Your task to perform on an android device: toggle translation in the chrome app Image 0: 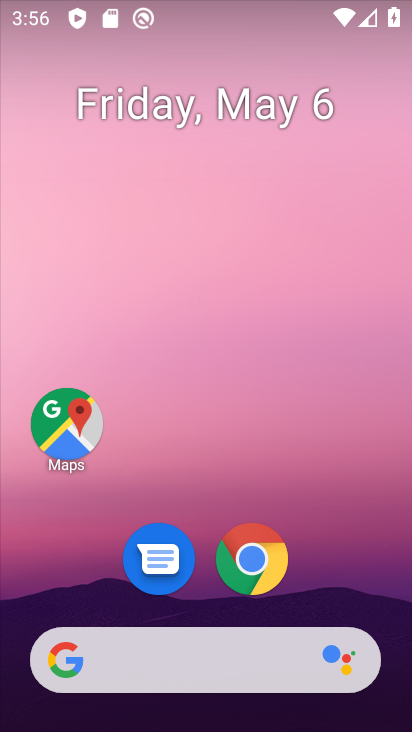
Step 0: click (261, 562)
Your task to perform on an android device: toggle translation in the chrome app Image 1: 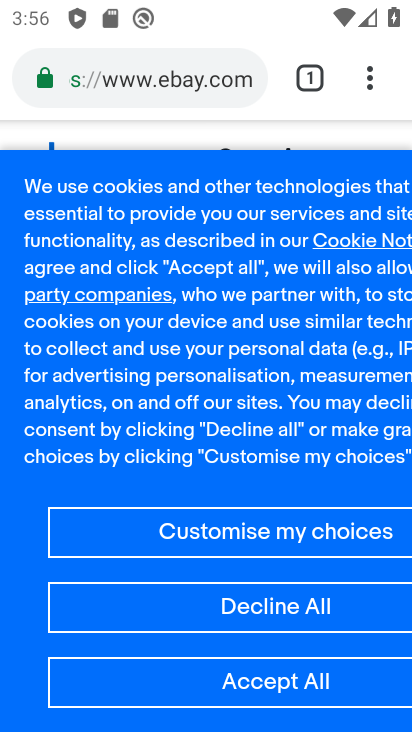
Step 1: click (376, 74)
Your task to perform on an android device: toggle translation in the chrome app Image 2: 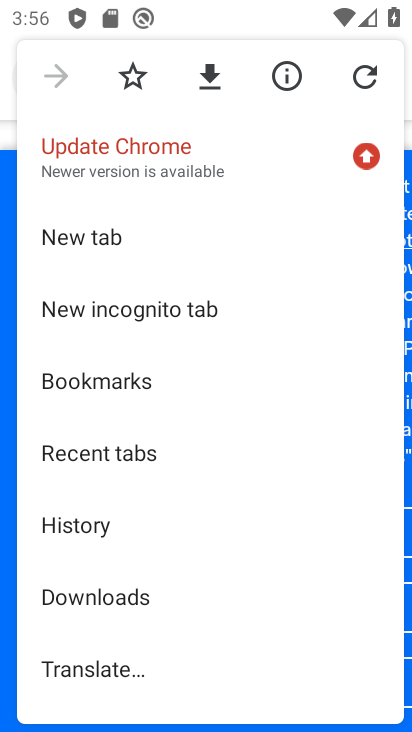
Step 2: drag from (102, 683) to (102, 299)
Your task to perform on an android device: toggle translation in the chrome app Image 3: 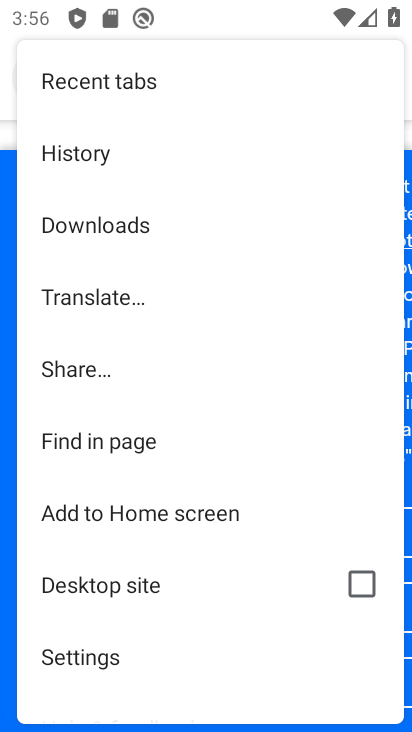
Step 3: click (107, 661)
Your task to perform on an android device: toggle translation in the chrome app Image 4: 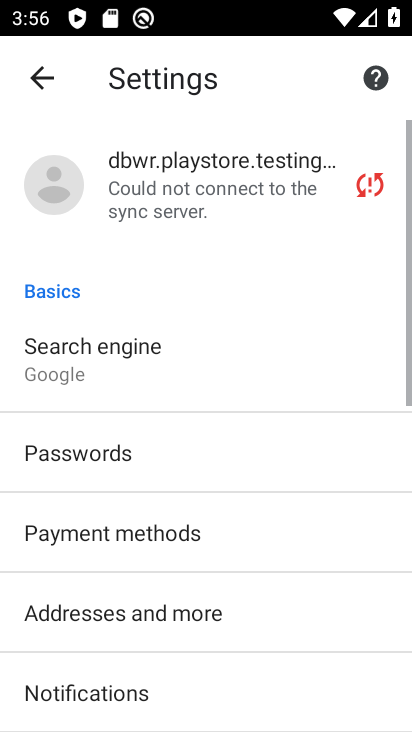
Step 4: drag from (103, 690) to (100, 283)
Your task to perform on an android device: toggle translation in the chrome app Image 5: 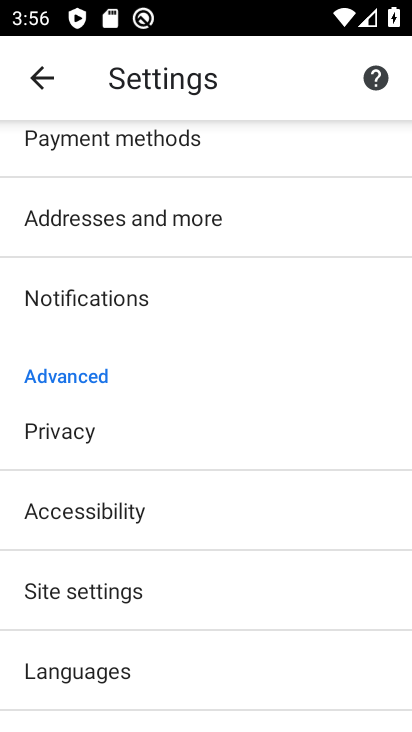
Step 5: click (82, 679)
Your task to perform on an android device: toggle translation in the chrome app Image 6: 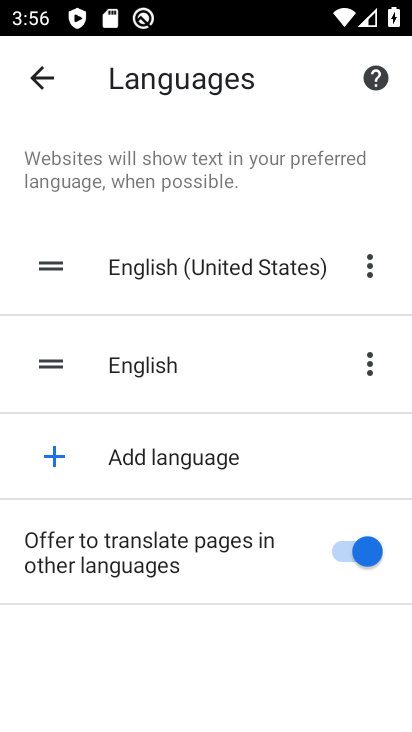
Step 6: click (350, 553)
Your task to perform on an android device: toggle translation in the chrome app Image 7: 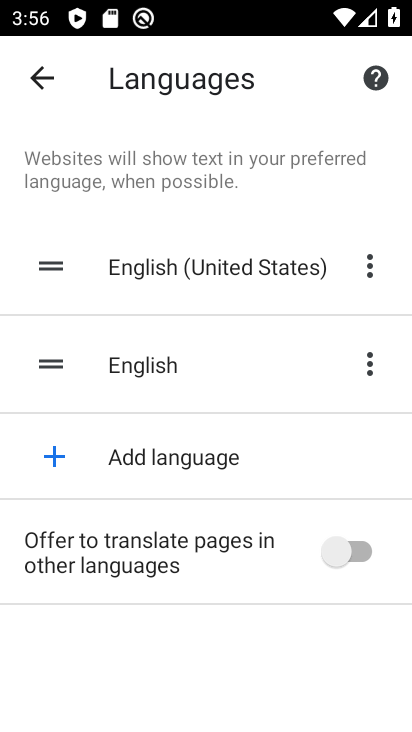
Step 7: task complete